Your task to perform on an android device: What is the recent news? Image 0: 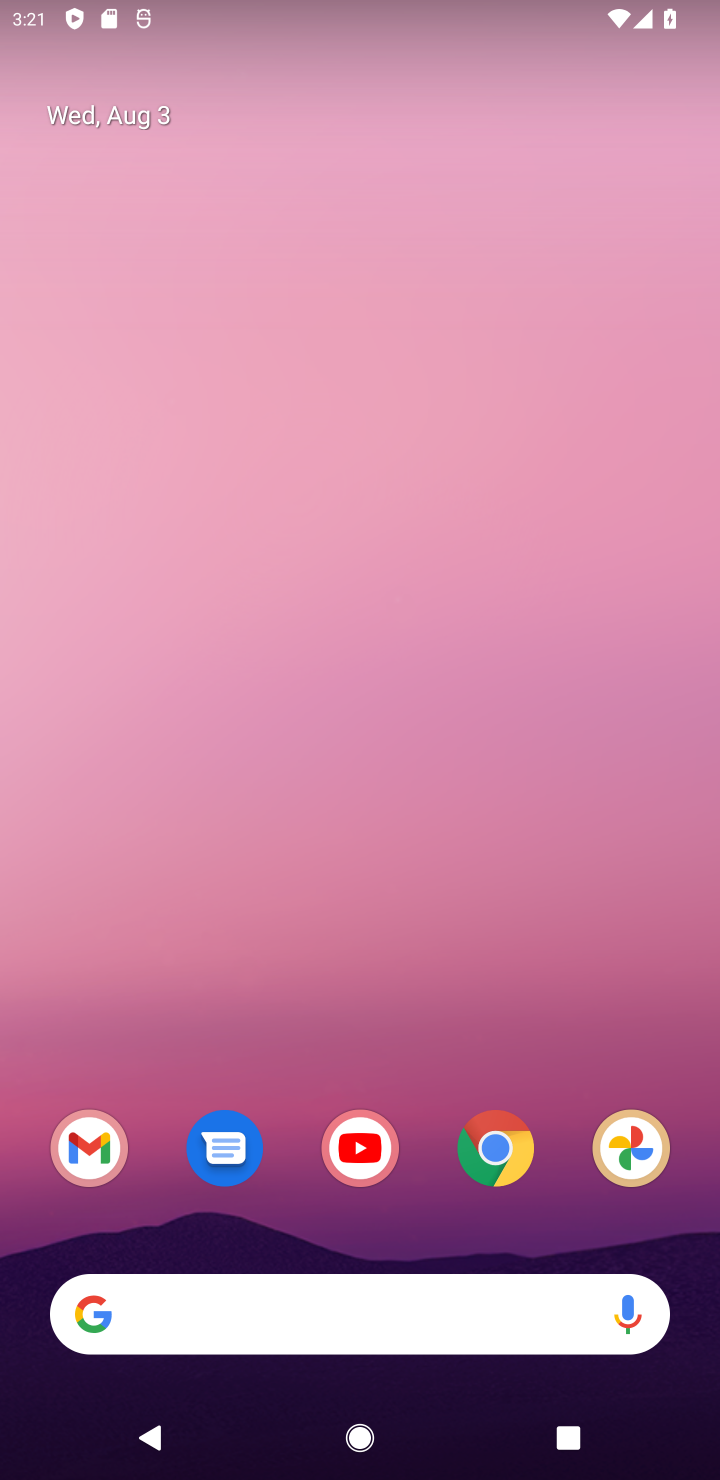
Step 0: drag from (425, 1052) to (437, 91)
Your task to perform on an android device: What is the recent news? Image 1: 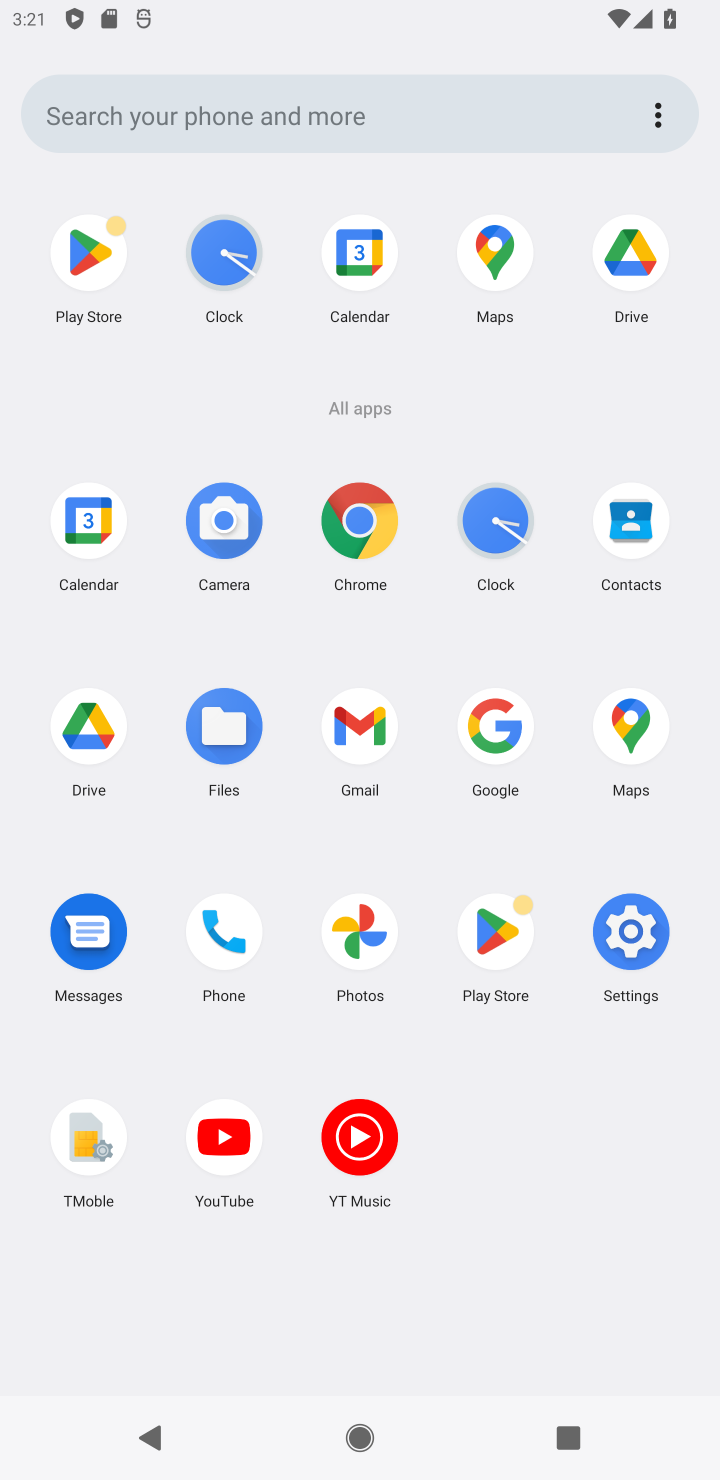
Step 1: task complete